Your task to perform on an android device: open device folders in google photos Image 0: 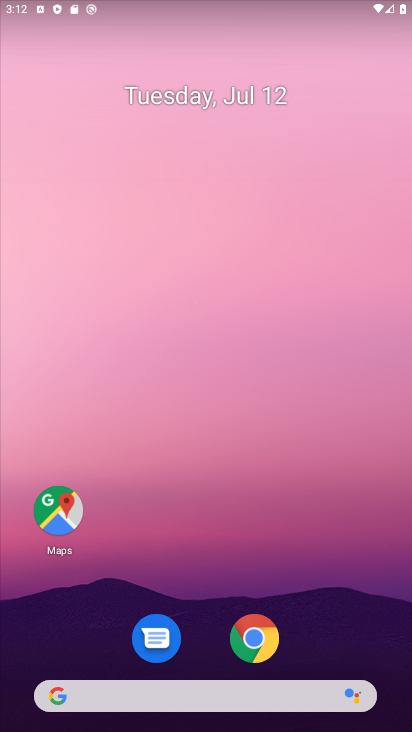
Step 0: drag from (206, 670) to (270, 34)
Your task to perform on an android device: open device folders in google photos Image 1: 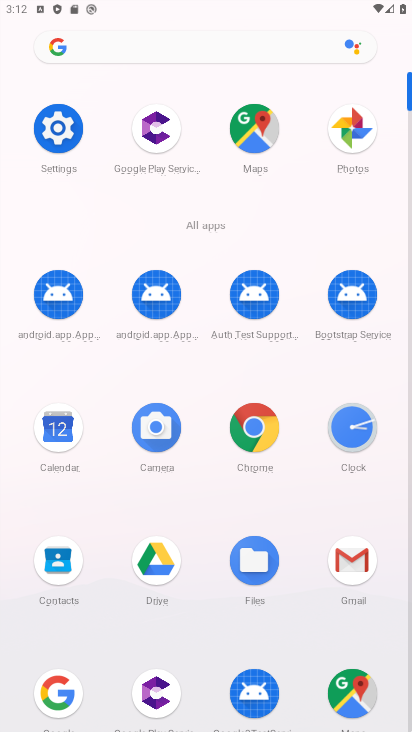
Step 1: click (341, 167)
Your task to perform on an android device: open device folders in google photos Image 2: 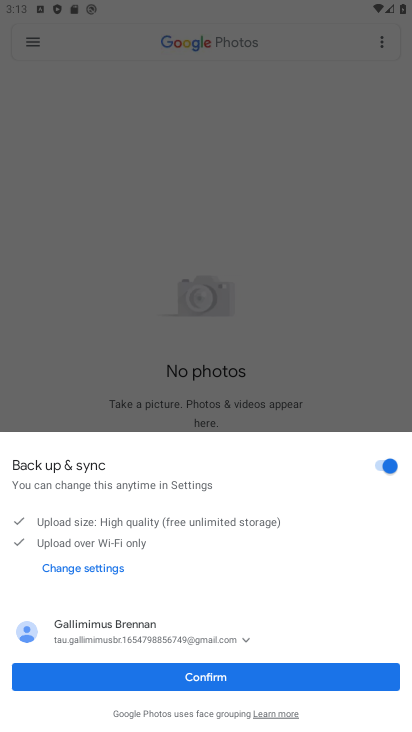
Step 2: click (239, 669)
Your task to perform on an android device: open device folders in google photos Image 3: 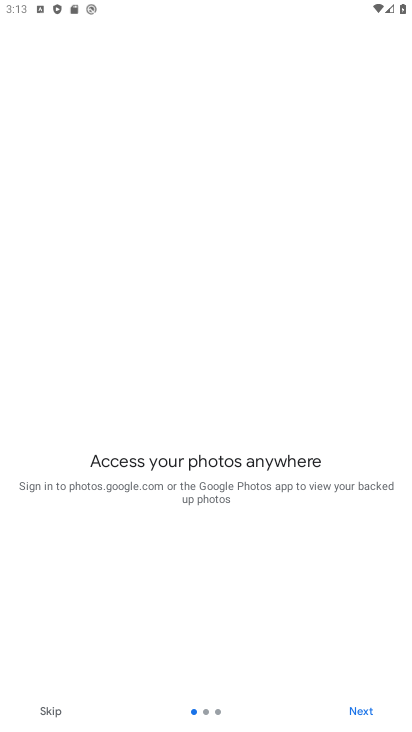
Step 3: click (368, 716)
Your task to perform on an android device: open device folders in google photos Image 4: 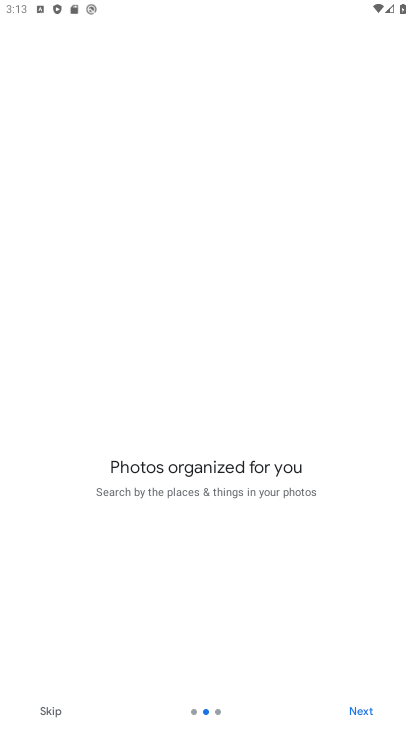
Step 4: click (368, 716)
Your task to perform on an android device: open device folders in google photos Image 5: 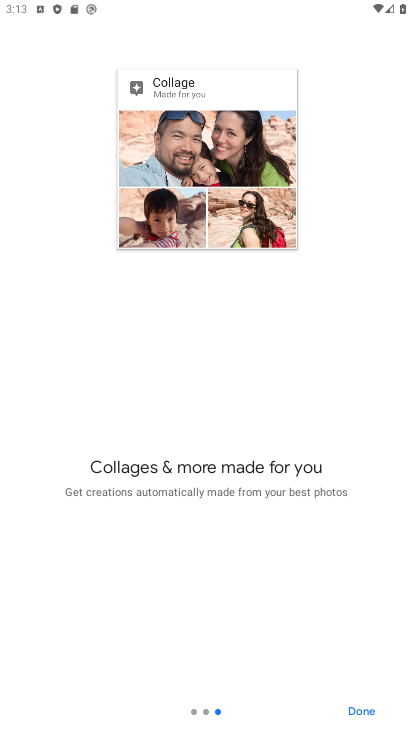
Step 5: click (351, 713)
Your task to perform on an android device: open device folders in google photos Image 6: 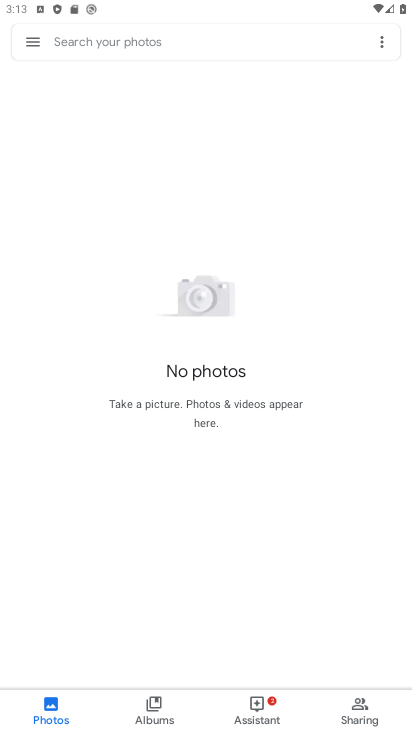
Step 6: click (32, 50)
Your task to perform on an android device: open device folders in google photos Image 7: 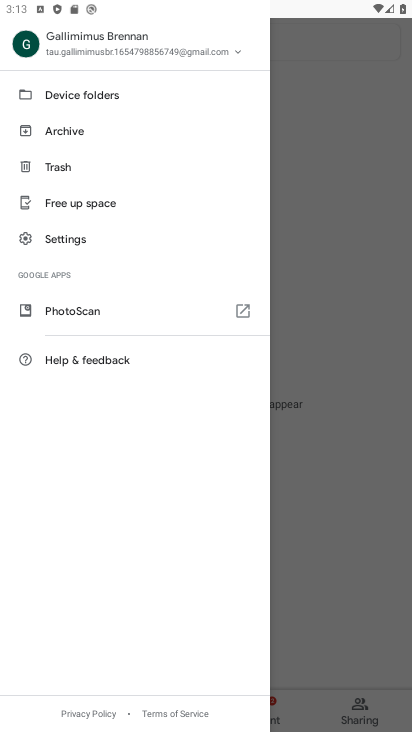
Step 7: click (80, 93)
Your task to perform on an android device: open device folders in google photos Image 8: 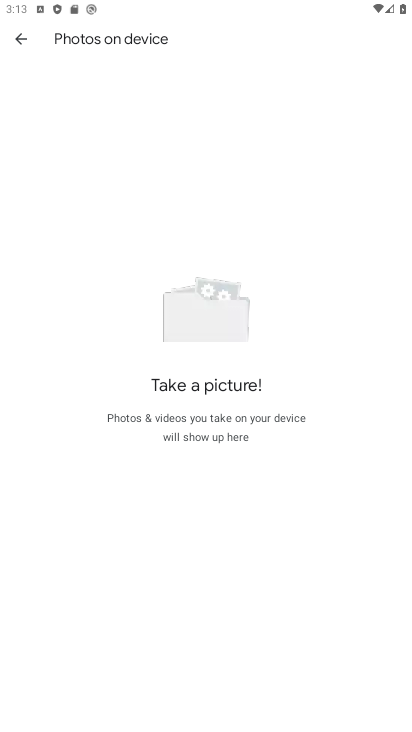
Step 8: task complete